Your task to perform on an android device: How big is a giraffe? Image 0: 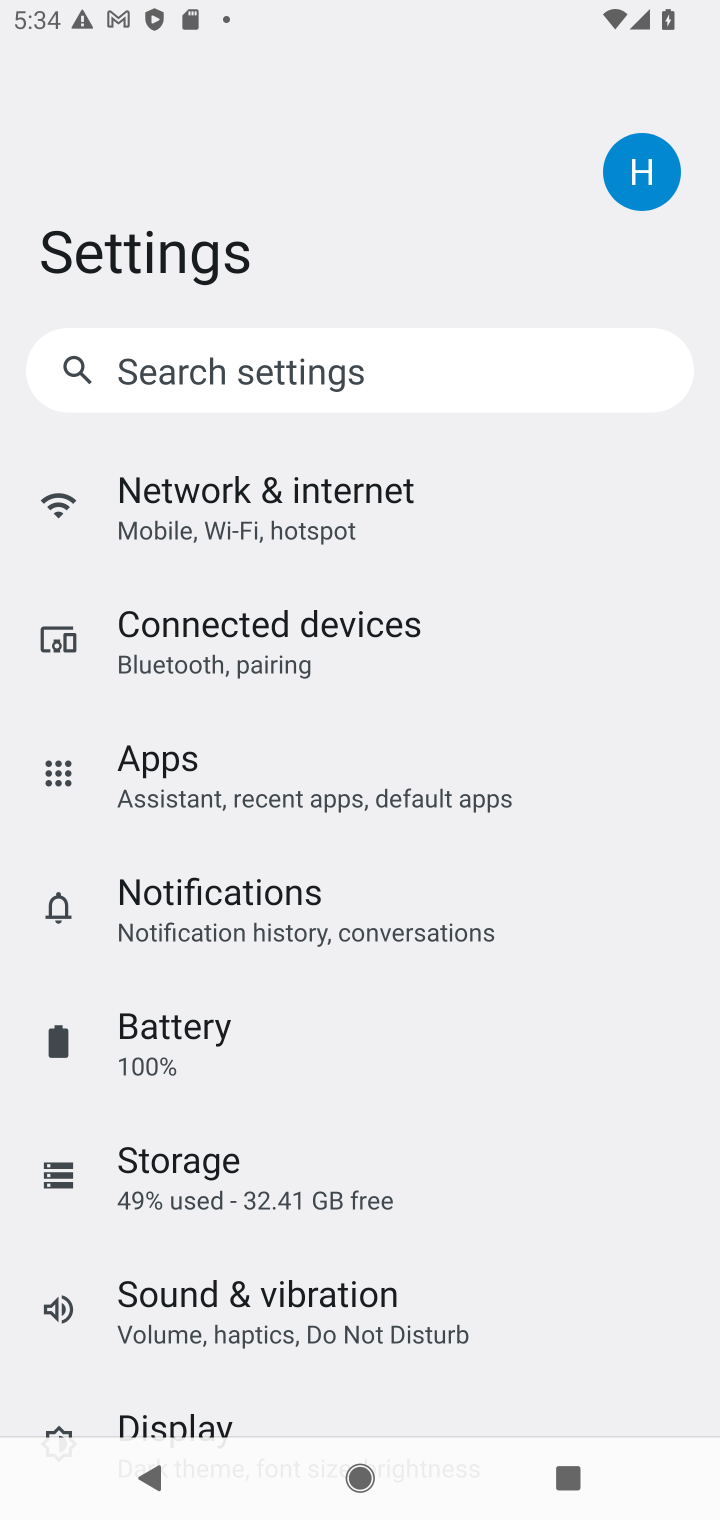
Step 0: press home button
Your task to perform on an android device: How big is a giraffe? Image 1: 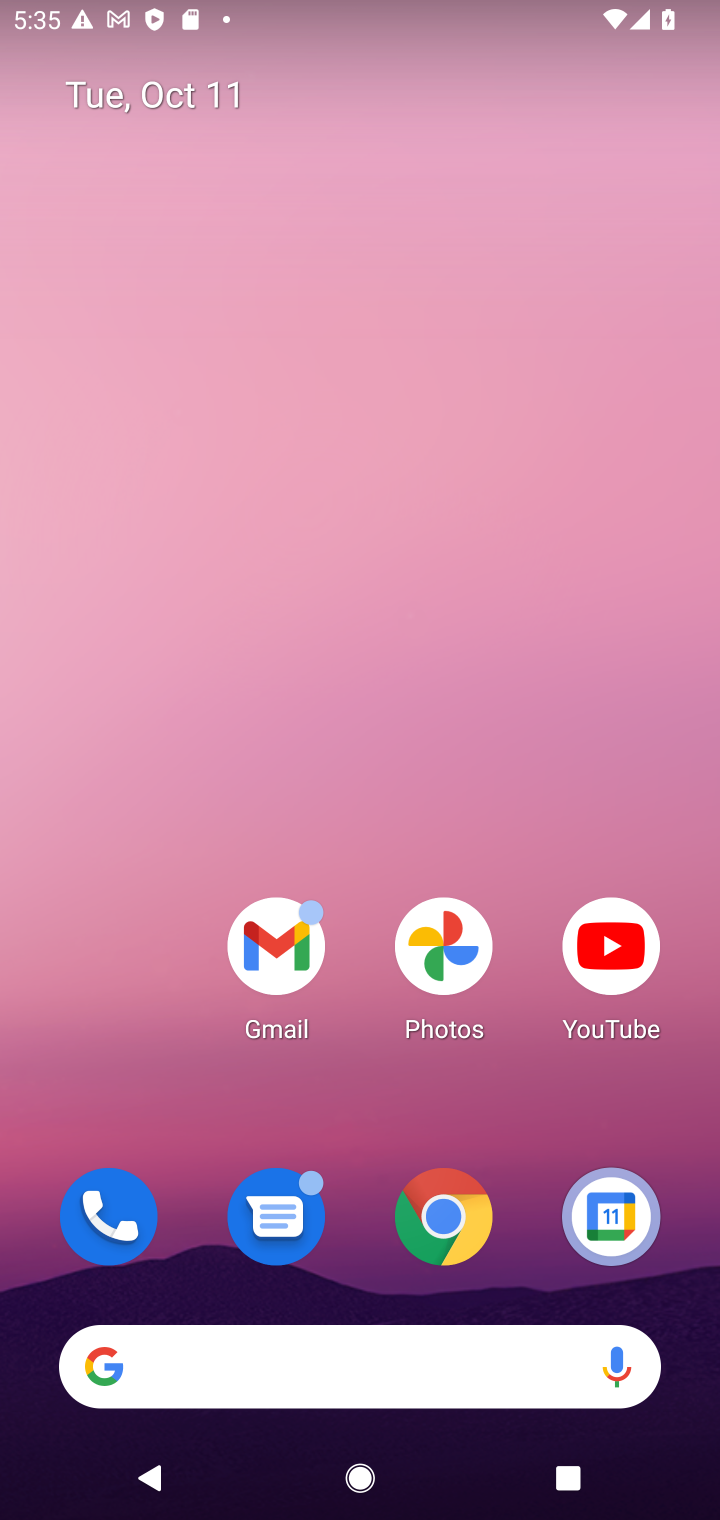
Step 1: click (448, 1214)
Your task to perform on an android device: How big is a giraffe? Image 2: 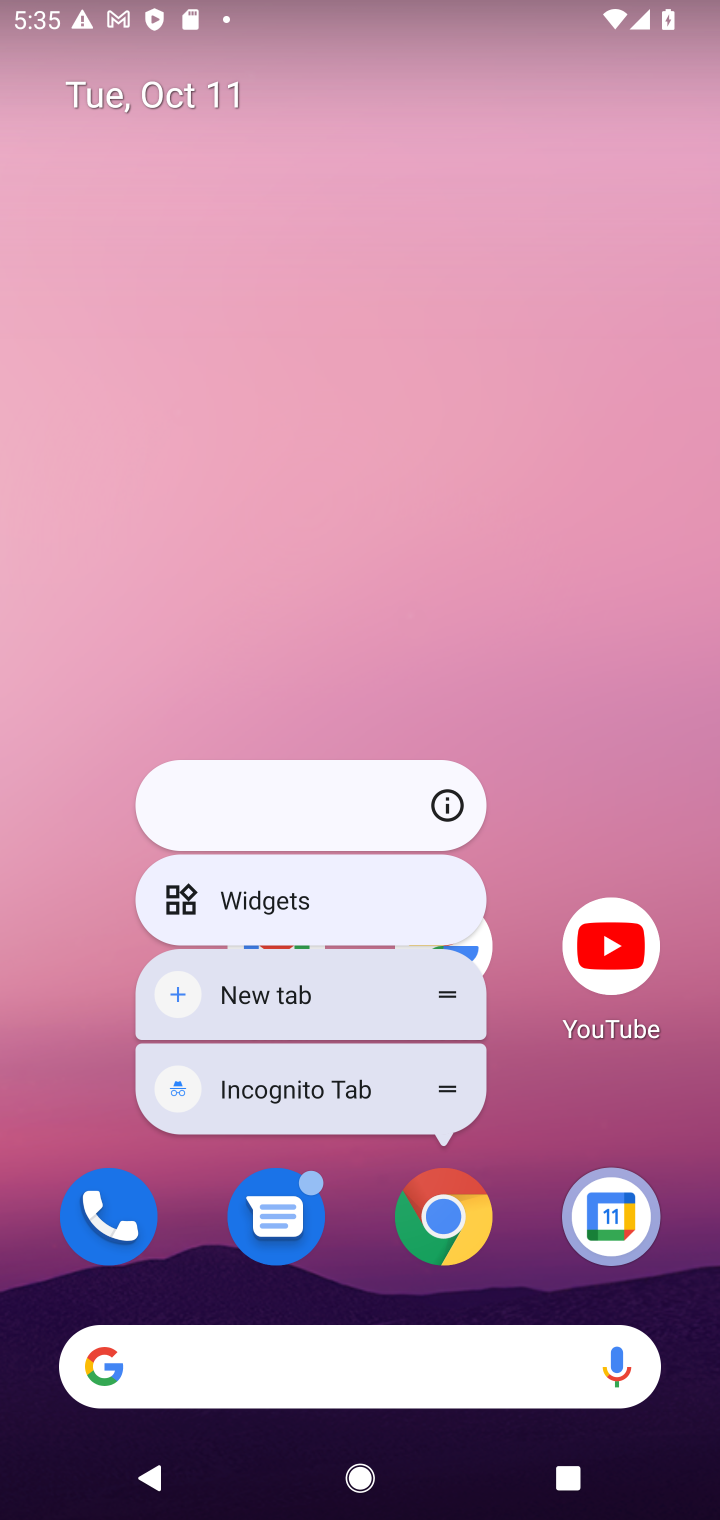
Step 2: click (448, 1214)
Your task to perform on an android device: How big is a giraffe? Image 3: 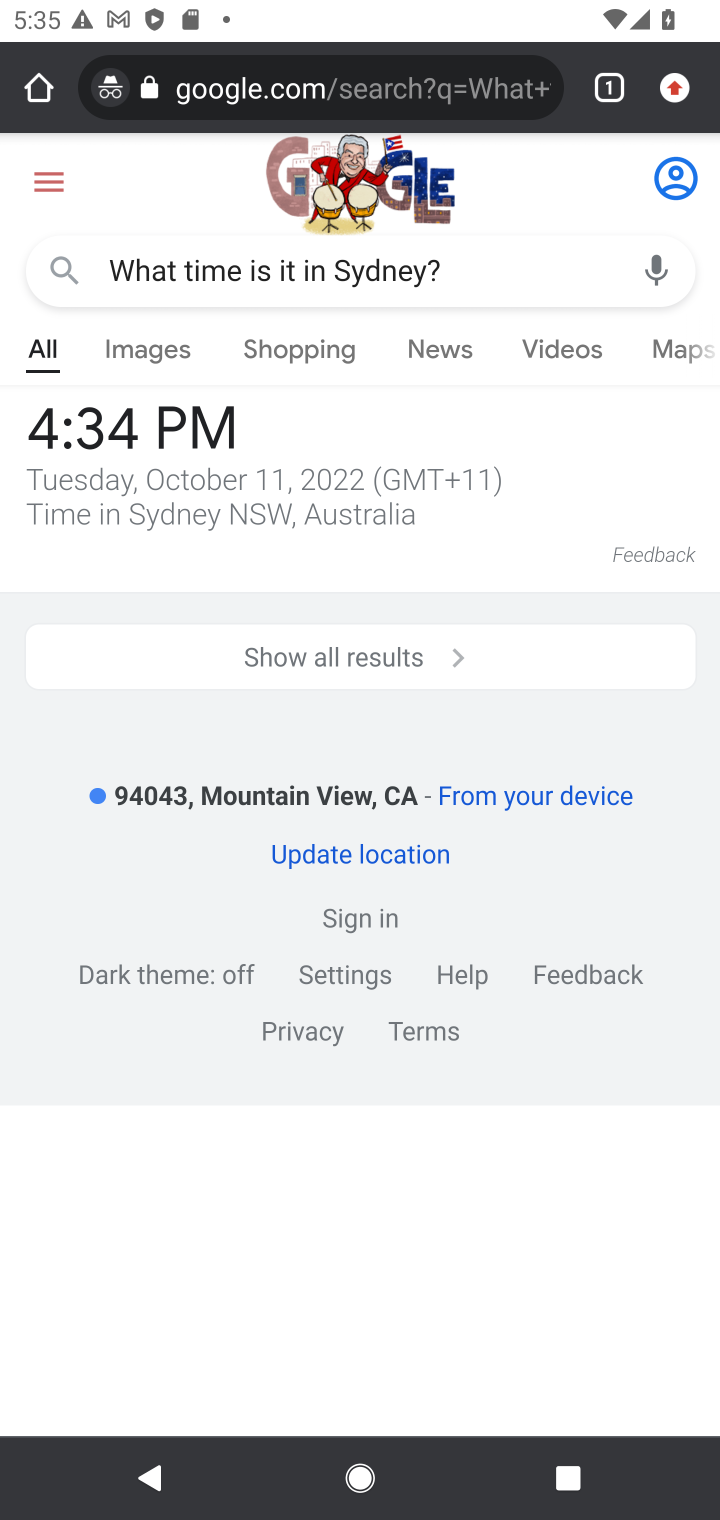
Step 3: click (466, 258)
Your task to perform on an android device: How big is a giraffe? Image 4: 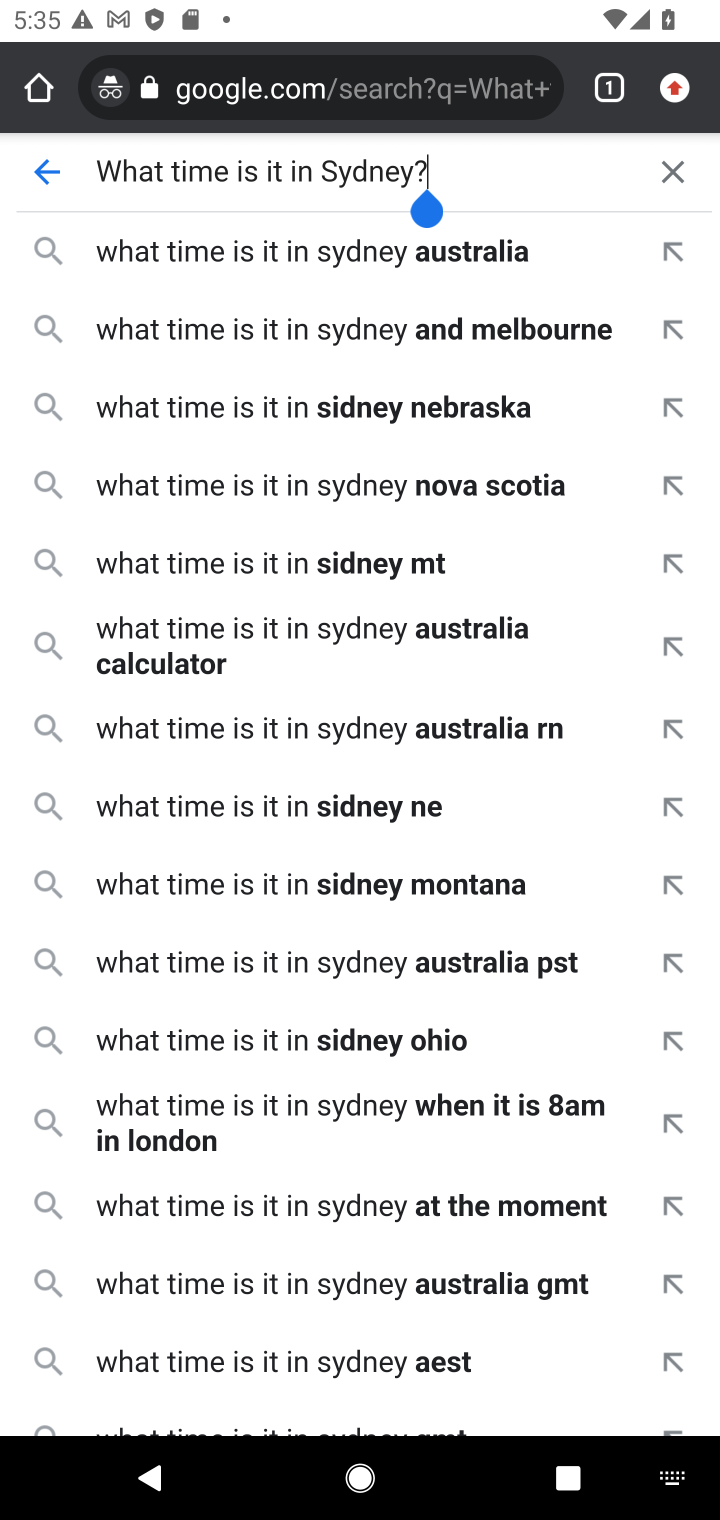
Step 4: click (484, 97)
Your task to perform on an android device: How big is a giraffe? Image 5: 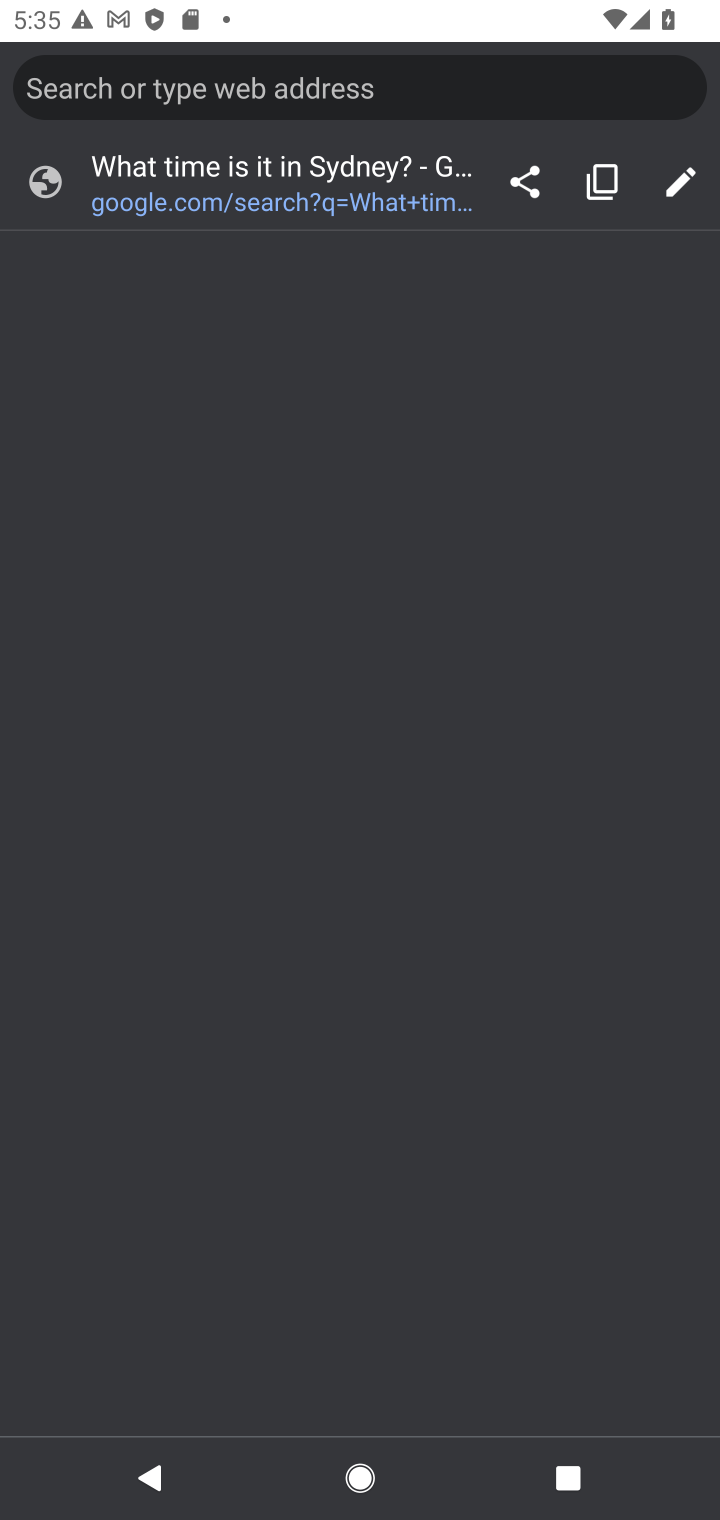
Step 5: type "How big is a giraffe?"
Your task to perform on an android device: How big is a giraffe? Image 6: 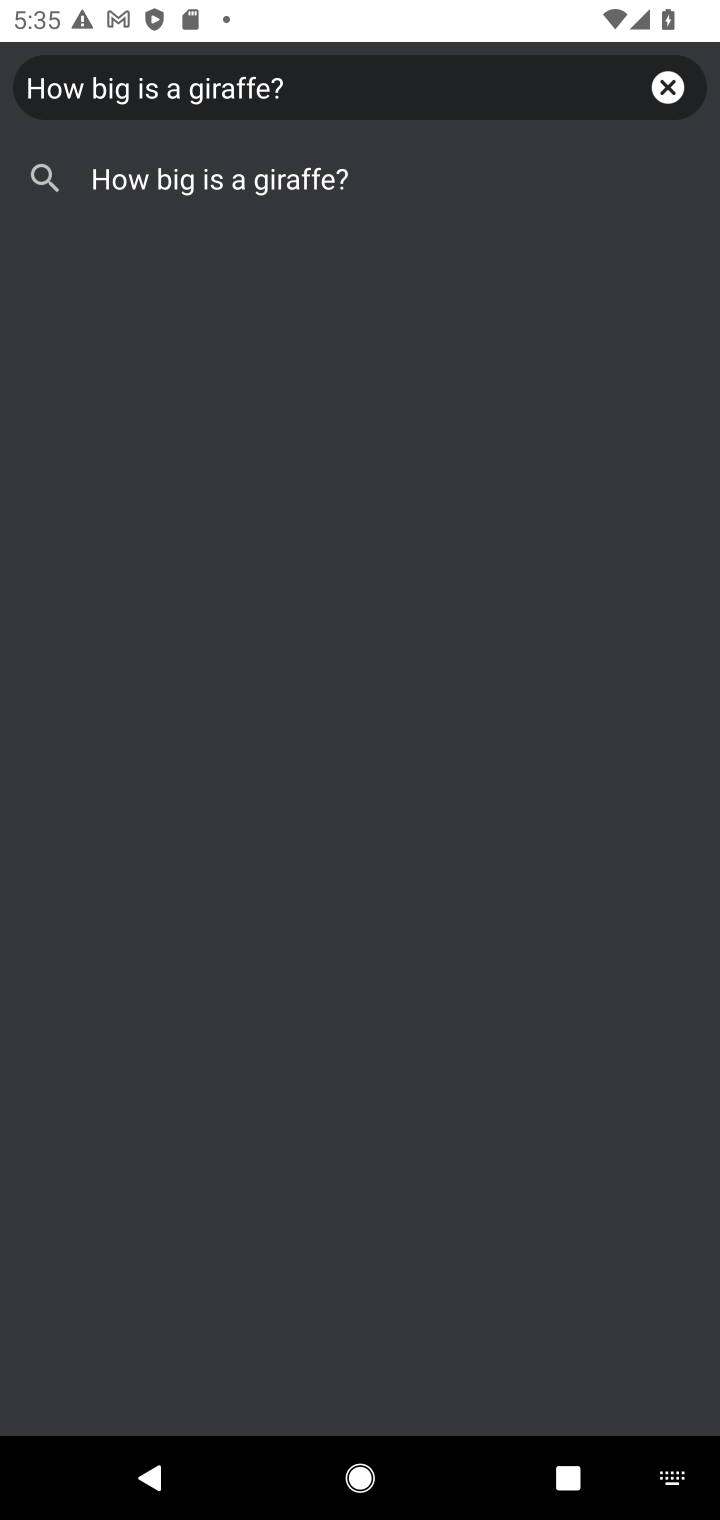
Step 6: click (276, 175)
Your task to perform on an android device: How big is a giraffe? Image 7: 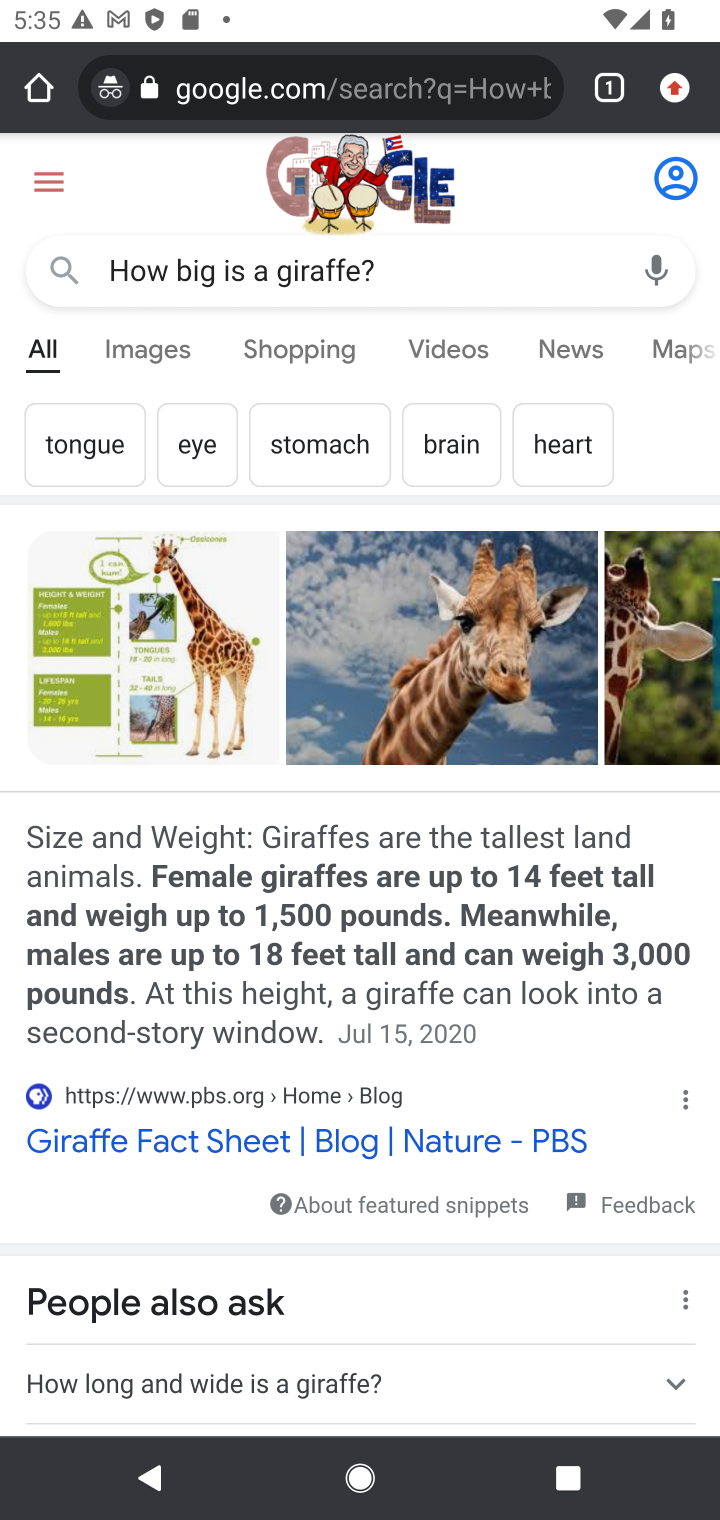
Step 7: task complete